Your task to perform on an android device: toggle notification dots Image 0: 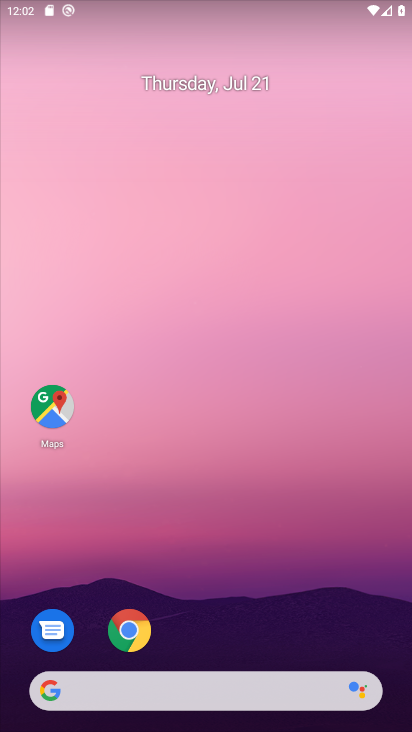
Step 0: drag from (181, 580) to (210, 206)
Your task to perform on an android device: toggle notification dots Image 1: 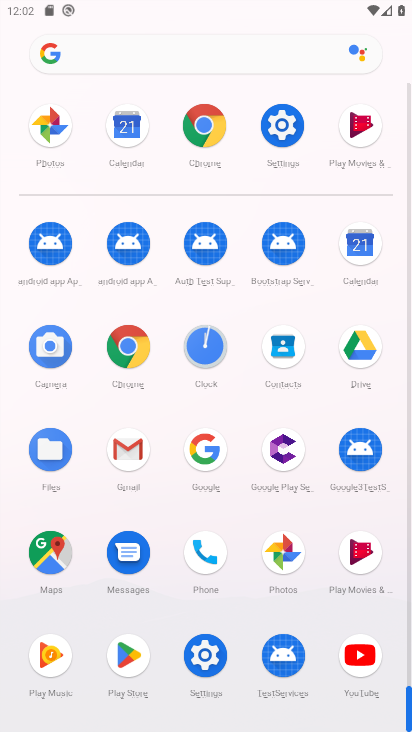
Step 1: click (200, 657)
Your task to perform on an android device: toggle notification dots Image 2: 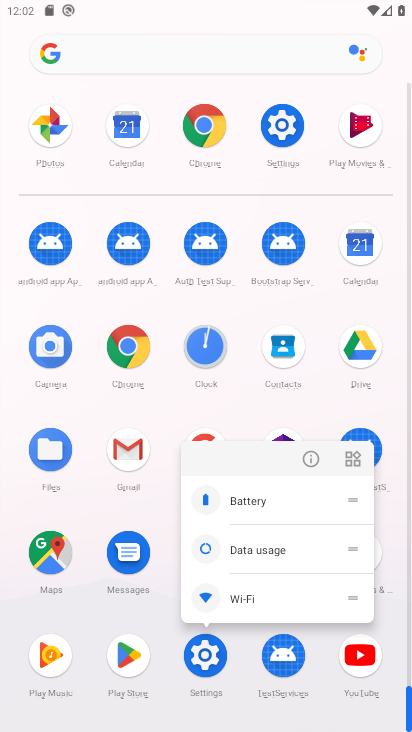
Step 2: click (308, 460)
Your task to perform on an android device: toggle notification dots Image 3: 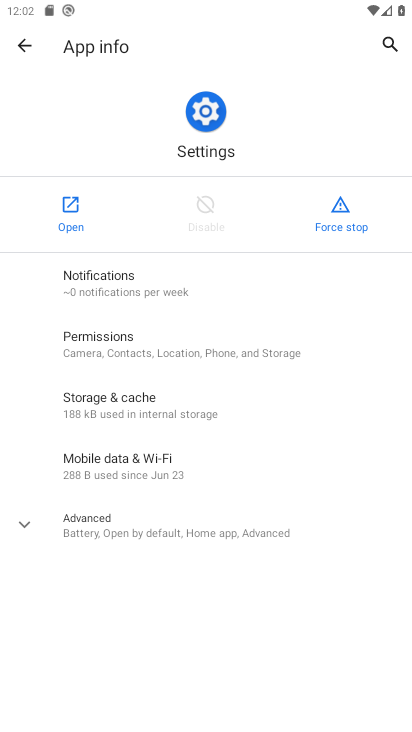
Step 3: click (63, 224)
Your task to perform on an android device: toggle notification dots Image 4: 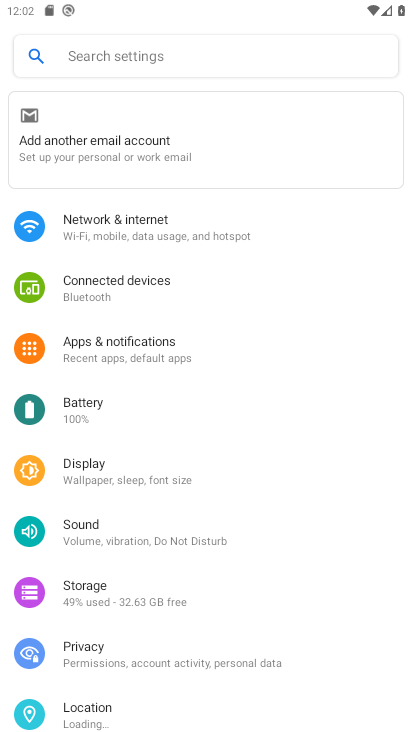
Step 4: click (132, 341)
Your task to perform on an android device: toggle notification dots Image 5: 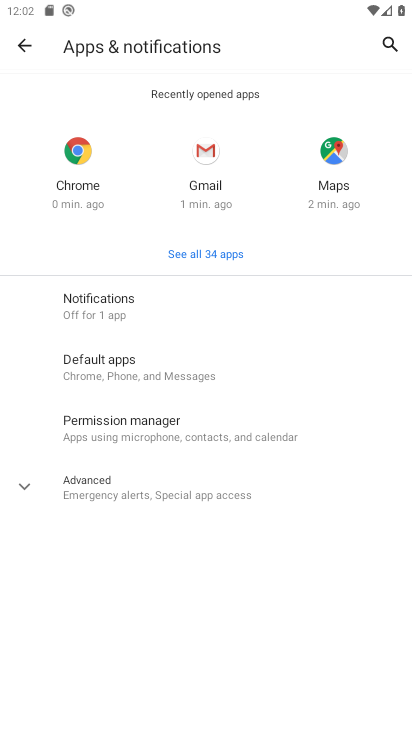
Step 5: click (167, 305)
Your task to perform on an android device: toggle notification dots Image 6: 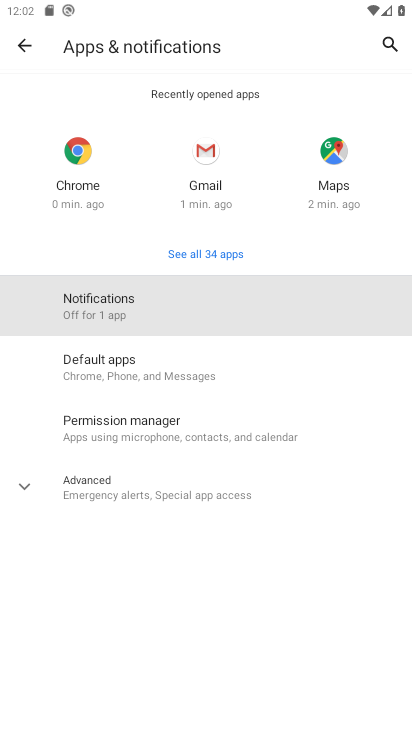
Step 6: drag from (270, 474) to (304, 167)
Your task to perform on an android device: toggle notification dots Image 7: 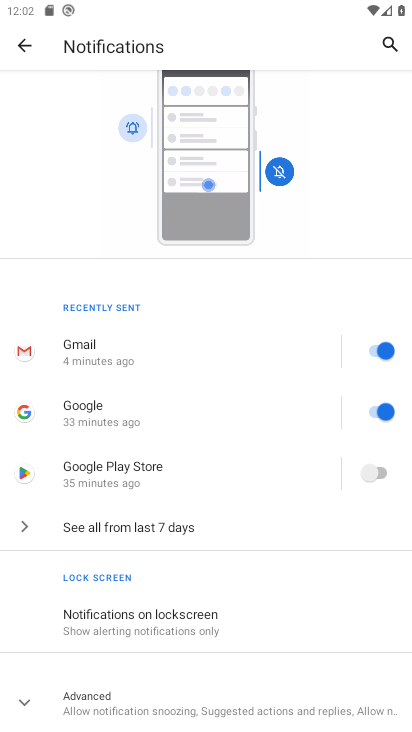
Step 7: drag from (154, 590) to (215, 244)
Your task to perform on an android device: toggle notification dots Image 8: 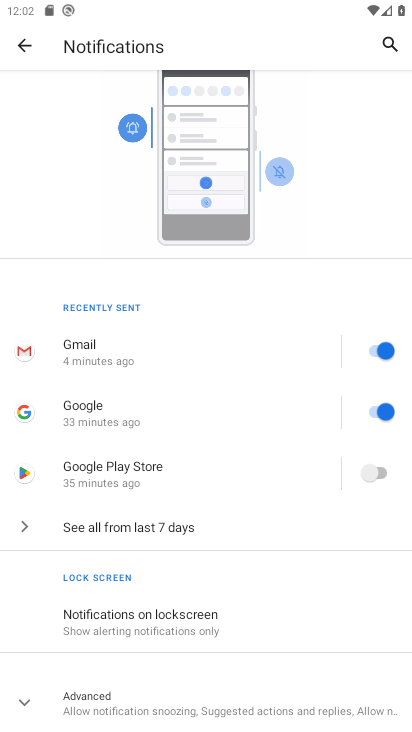
Step 8: click (137, 708)
Your task to perform on an android device: toggle notification dots Image 9: 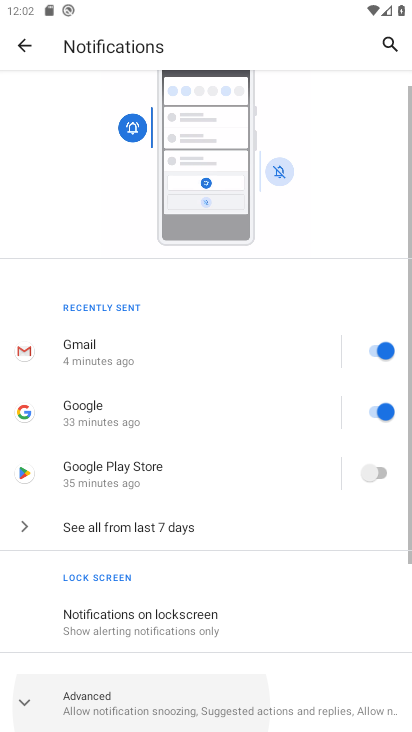
Step 9: drag from (136, 705) to (252, 142)
Your task to perform on an android device: toggle notification dots Image 10: 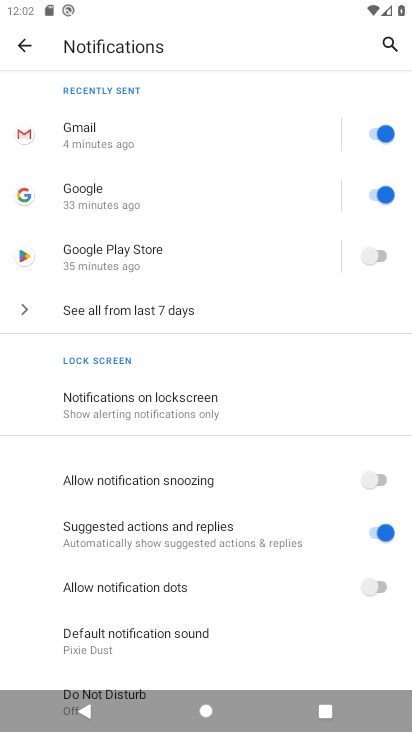
Step 10: click (374, 586)
Your task to perform on an android device: toggle notification dots Image 11: 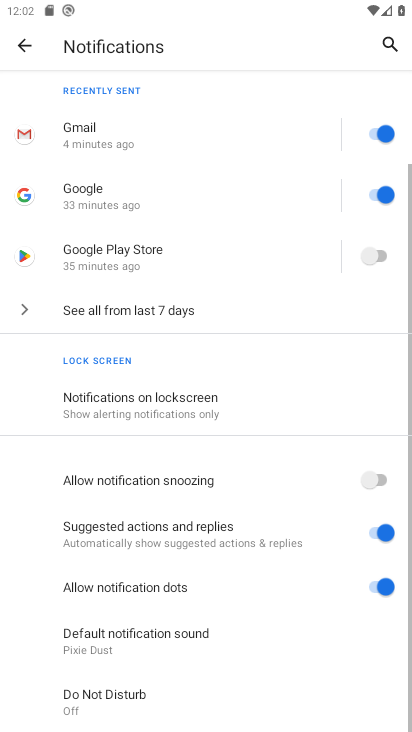
Step 11: task complete